Your task to perform on an android device: turn off translation in the chrome app Image 0: 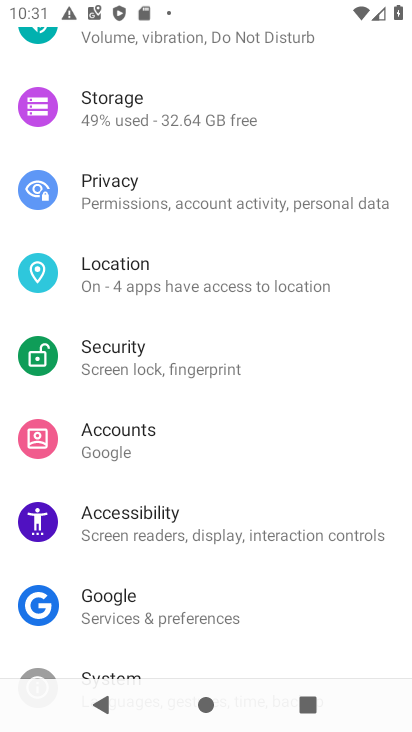
Step 0: press home button
Your task to perform on an android device: turn off translation in the chrome app Image 1: 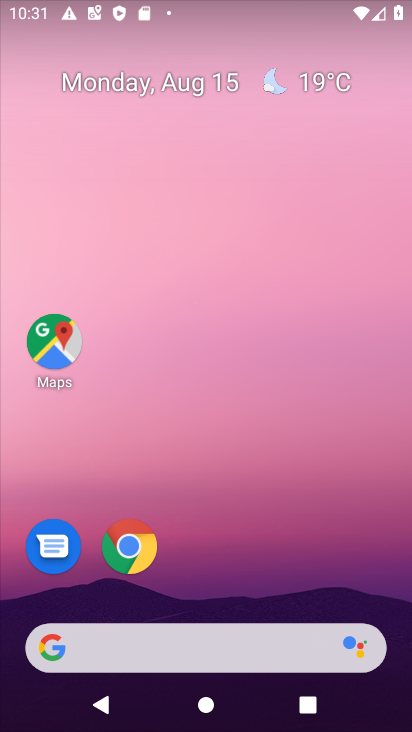
Step 1: click (133, 540)
Your task to perform on an android device: turn off translation in the chrome app Image 2: 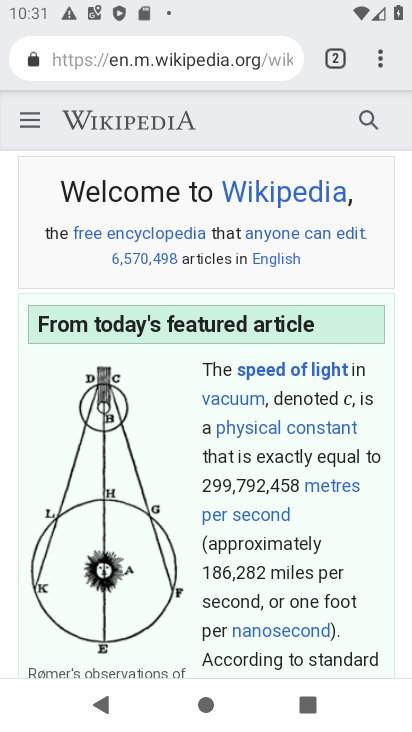
Step 2: click (380, 67)
Your task to perform on an android device: turn off translation in the chrome app Image 3: 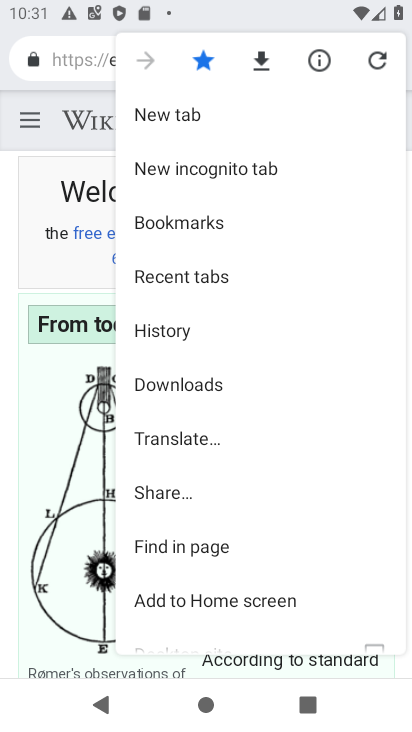
Step 3: drag from (193, 605) to (194, 325)
Your task to perform on an android device: turn off translation in the chrome app Image 4: 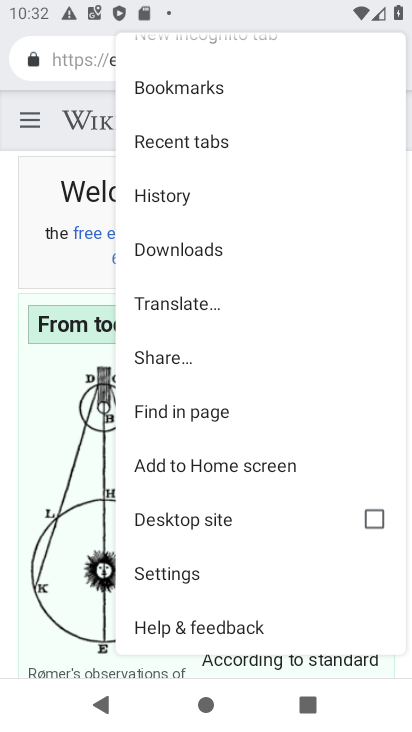
Step 4: click (179, 572)
Your task to perform on an android device: turn off translation in the chrome app Image 5: 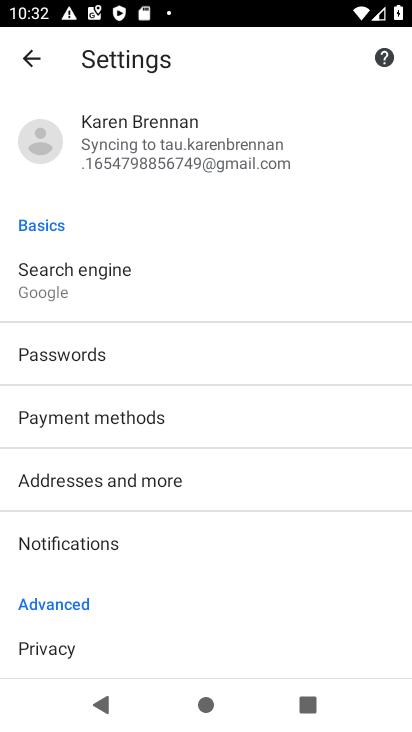
Step 5: drag from (99, 642) to (127, 302)
Your task to perform on an android device: turn off translation in the chrome app Image 6: 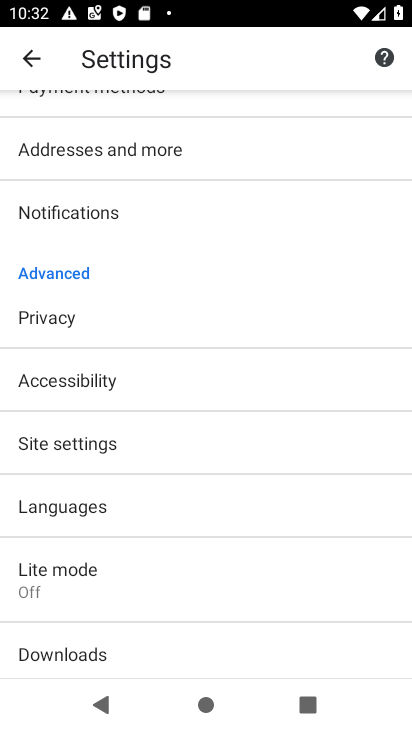
Step 6: click (89, 505)
Your task to perform on an android device: turn off translation in the chrome app Image 7: 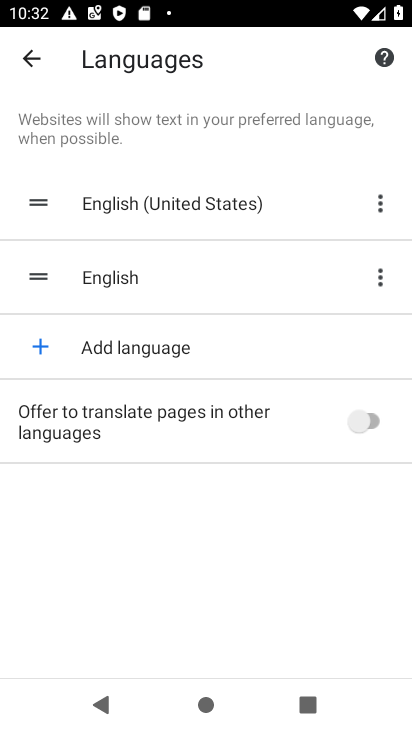
Step 7: task complete